Your task to perform on an android device: What's on my calendar today? Image 0: 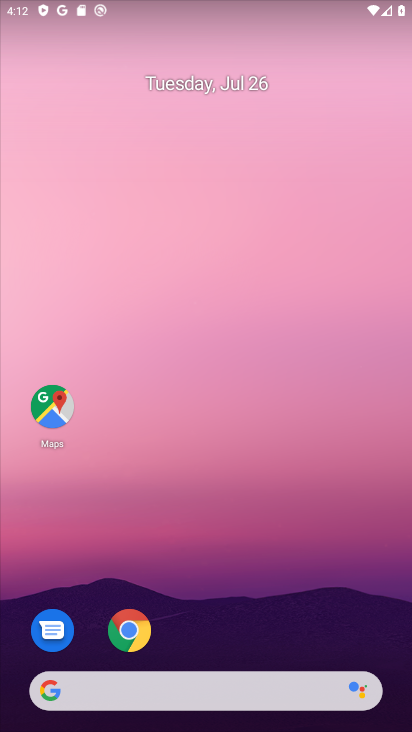
Step 0: drag from (334, 629) to (294, 69)
Your task to perform on an android device: What's on my calendar today? Image 1: 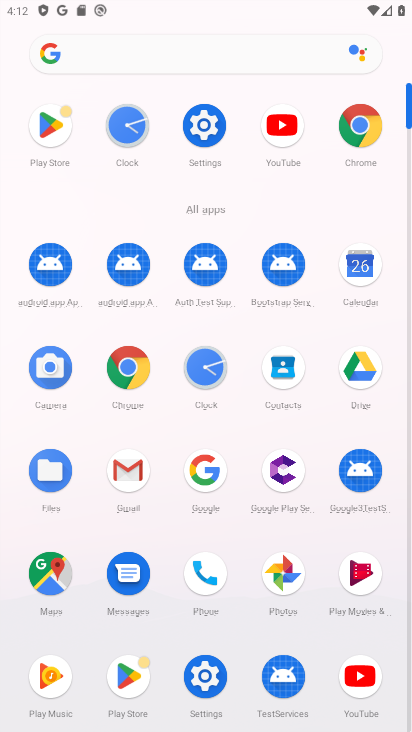
Step 1: click (362, 270)
Your task to perform on an android device: What's on my calendar today? Image 2: 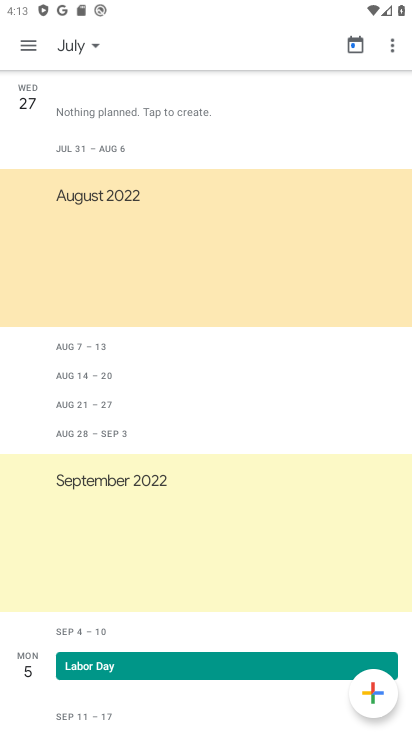
Step 2: click (64, 44)
Your task to perform on an android device: What's on my calendar today? Image 3: 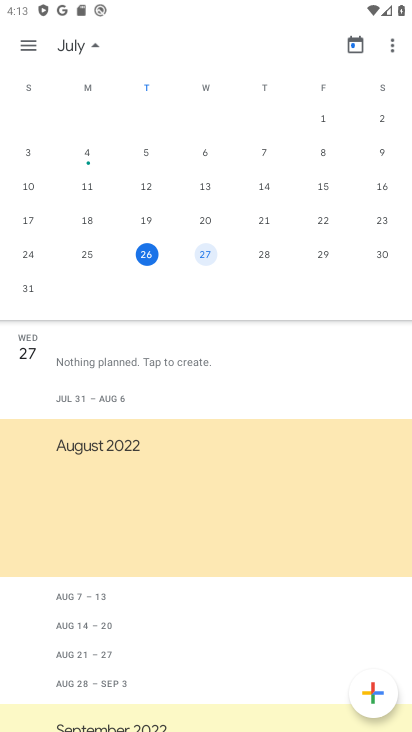
Step 3: click (141, 251)
Your task to perform on an android device: What's on my calendar today? Image 4: 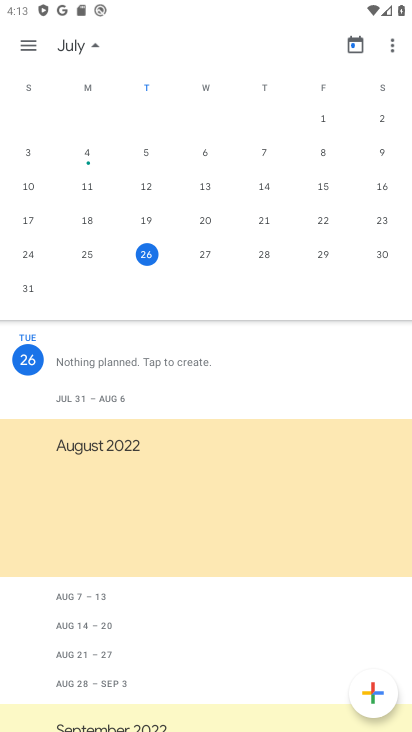
Step 4: task complete